Your task to perform on an android device: What is the recent news? Image 0: 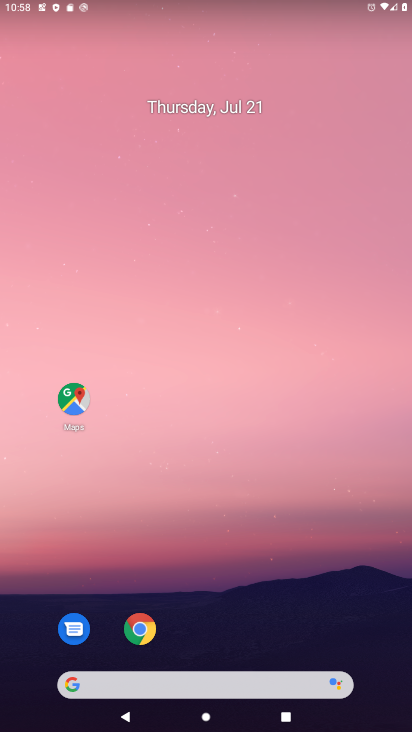
Step 0: click (140, 629)
Your task to perform on an android device: What is the recent news? Image 1: 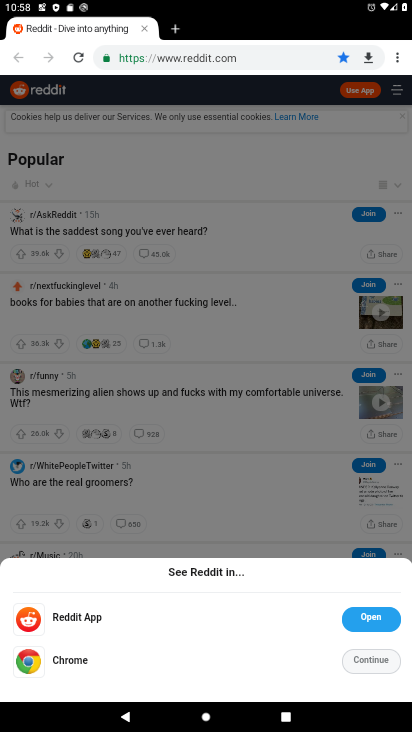
Step 1: click (227, 50)
Your task to perform on an android device: What is the recent news? Image 2: 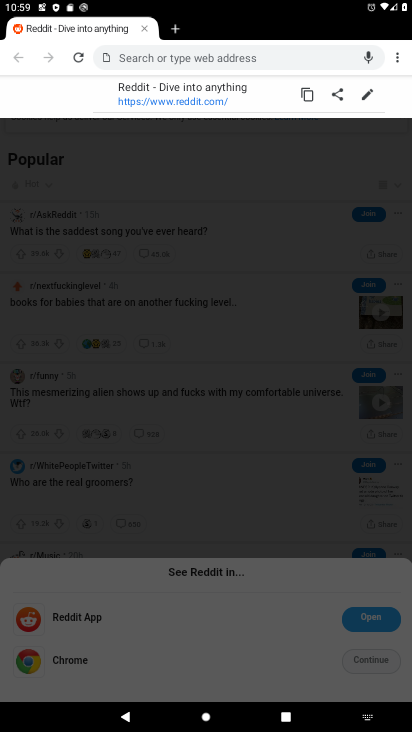
Step 2: type "What is the recent news?"
Your task to perform on an android device: What is the recent news? Image 3: 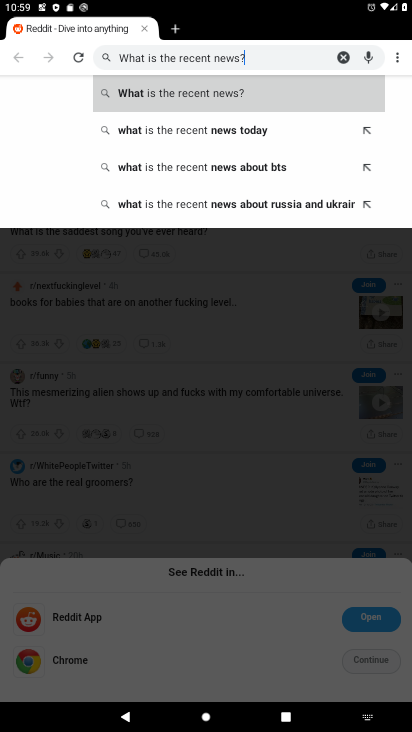
Step 3: click (174, 97)
Your task to perform on an android device: What is the recent news? Image 4: 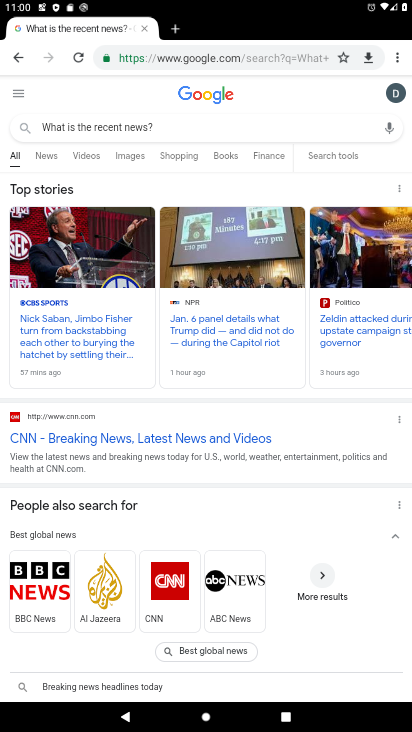
Step 4: task complete